Your task to perform on an android device: Search for seafood restaurants on Google Maps Image 0: 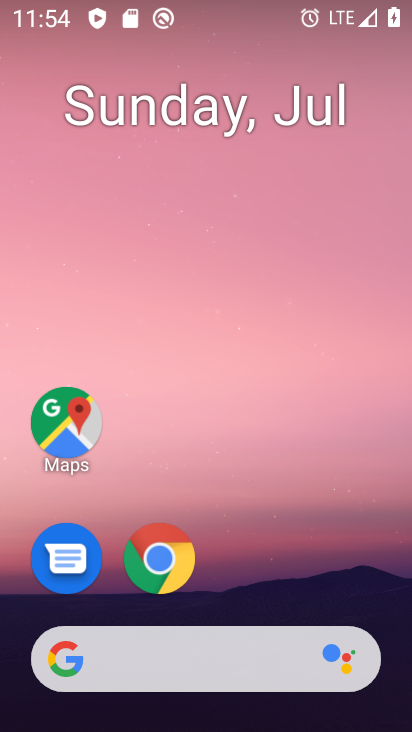
Step 0: click (63, 433)
Your task to perform on an android device: Search for seafood restaurants on Google Maps Image 1: 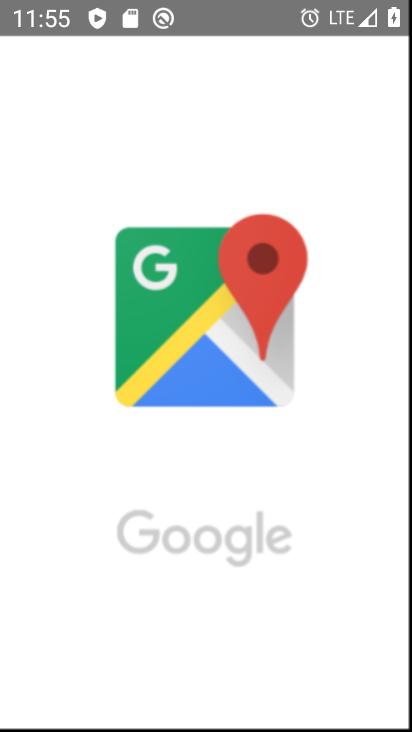
Step 1: task complete